Your task to perform on an android device: Show me the alarms in the clock app Image 0: 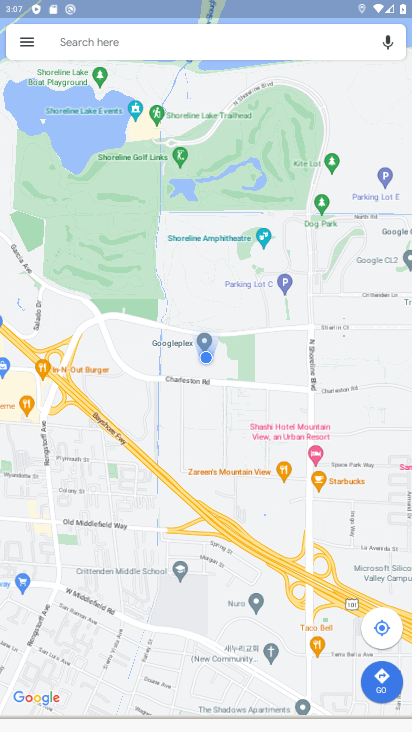
Step 0: press home button
Your task to perform on an android device: Show me the alarms in the clock app Image 1: 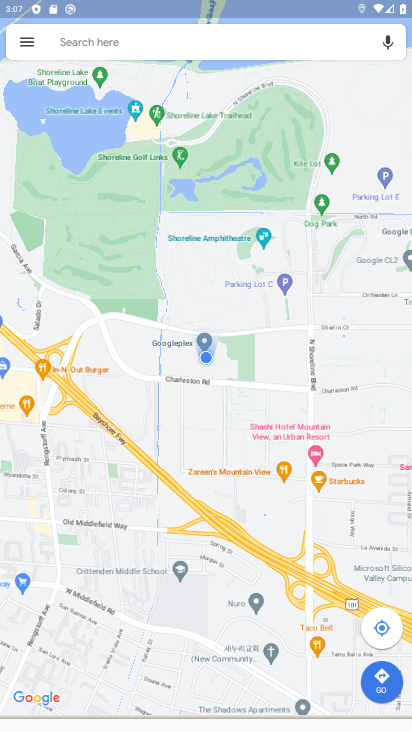
Step 1: click (182, 132)
Your task to perform on an android device: Show me the alarms in the clock app Image 2: 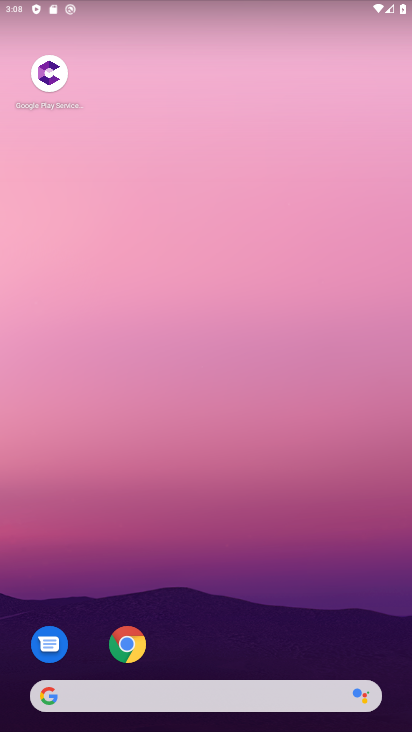
Step 2: drag from (276, 634) to (187, 136)
Your task to perform on an android device: Show me the alarms in the clock app Image 3: 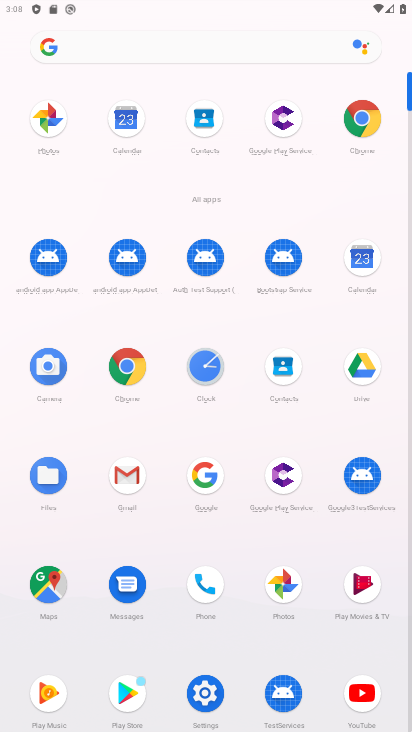
Step 3: click (196, 371)
Your task to perform on an android device: Show me the alarms in the clock app Image 4: 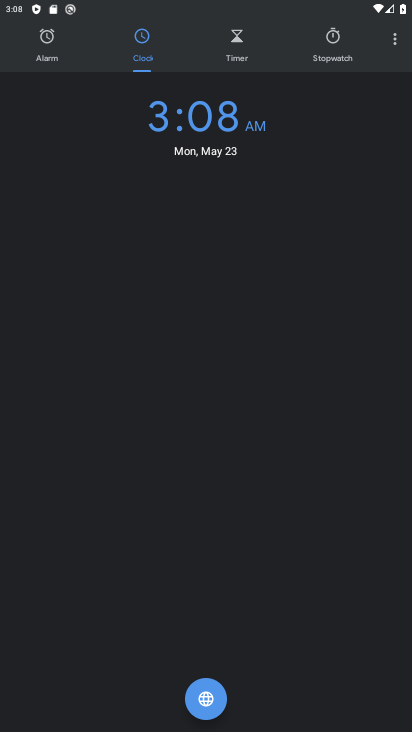
Step 4: click (55, 50)
Your task to perform on an android device: Show me the alarms in the clock app Image 5: 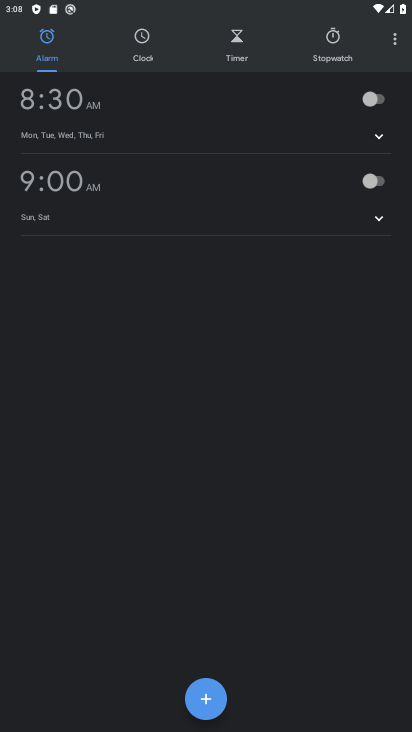
Step 5: task complete